Your task to perform on an android device: allow notifications from all sites in the chrome app Image 0: 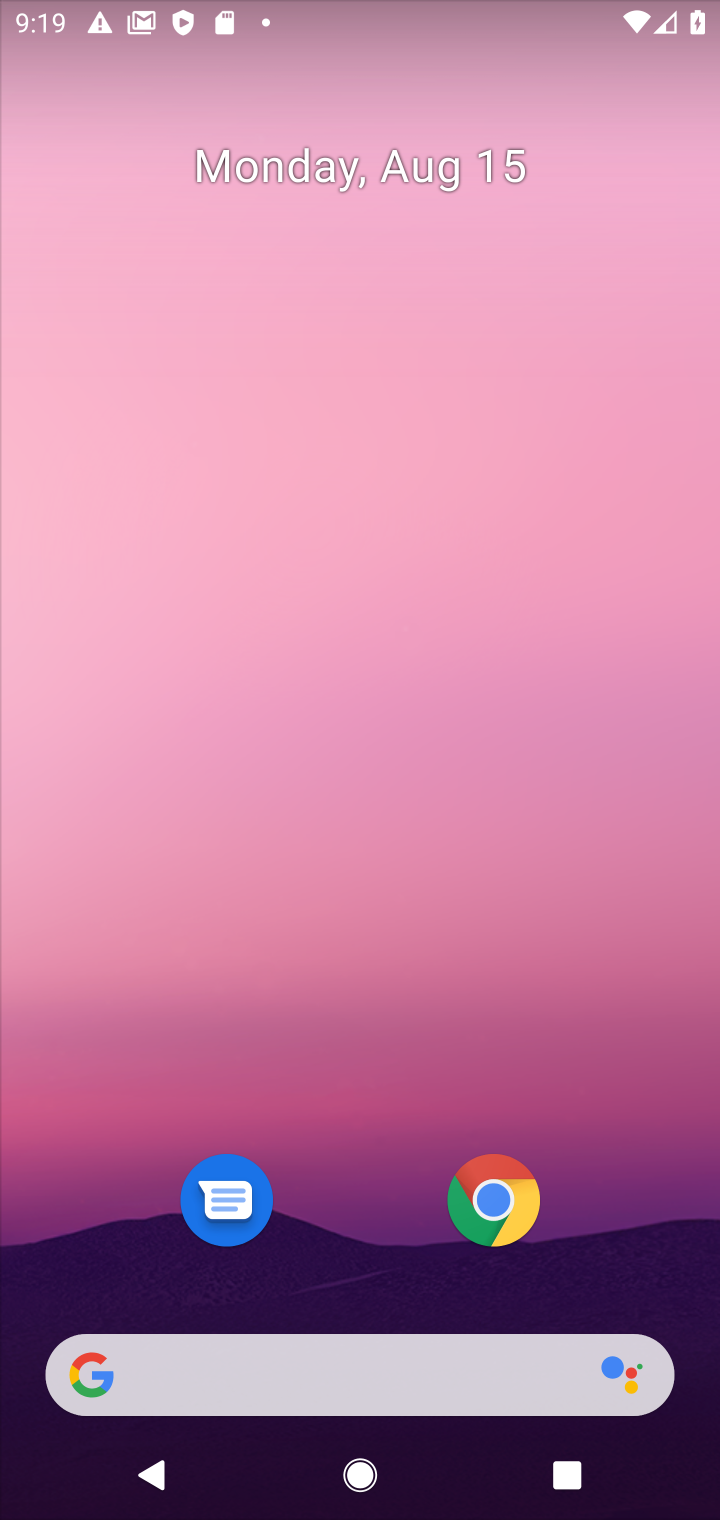
Step 0: click (450, 1163)
Your task to perform on an android device: allow notifications from all sites in the chrome app Image 1: 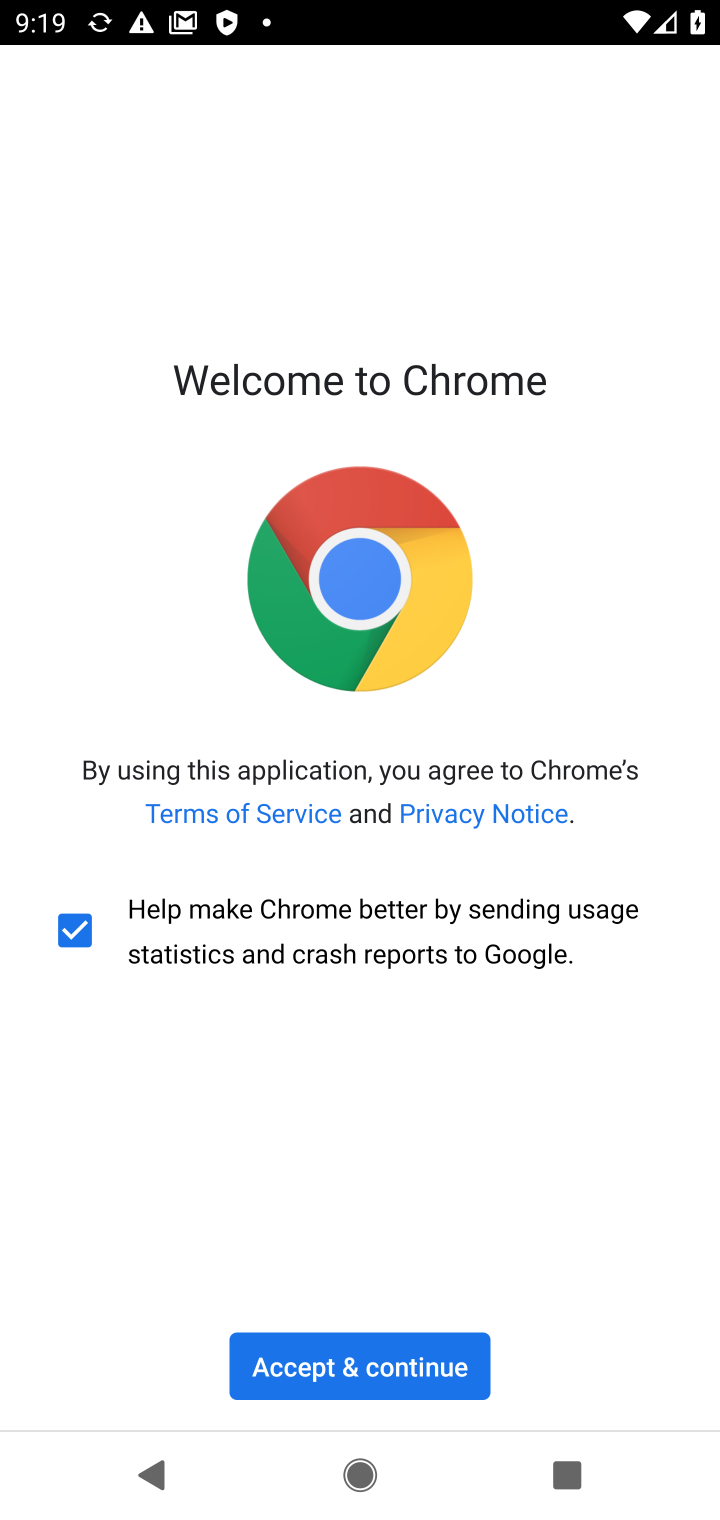
Step 1: click (425, 1354)
Your task to perform on an android device: allow notifications from all sites in the chrome app Image 2: 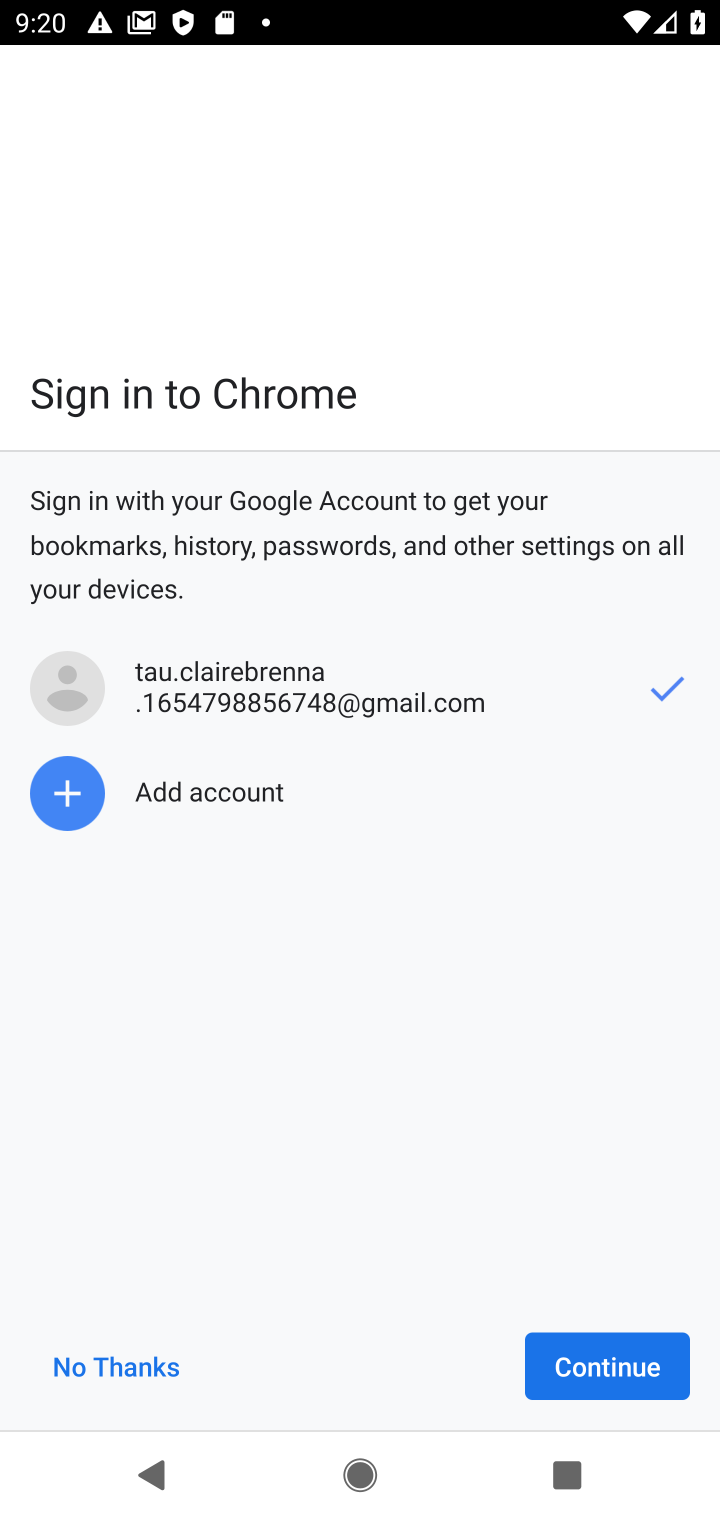
Step 2: click (605, 1358)
Your task to perform on an android device: allow notifications from all sites in the chrome app Image 3: 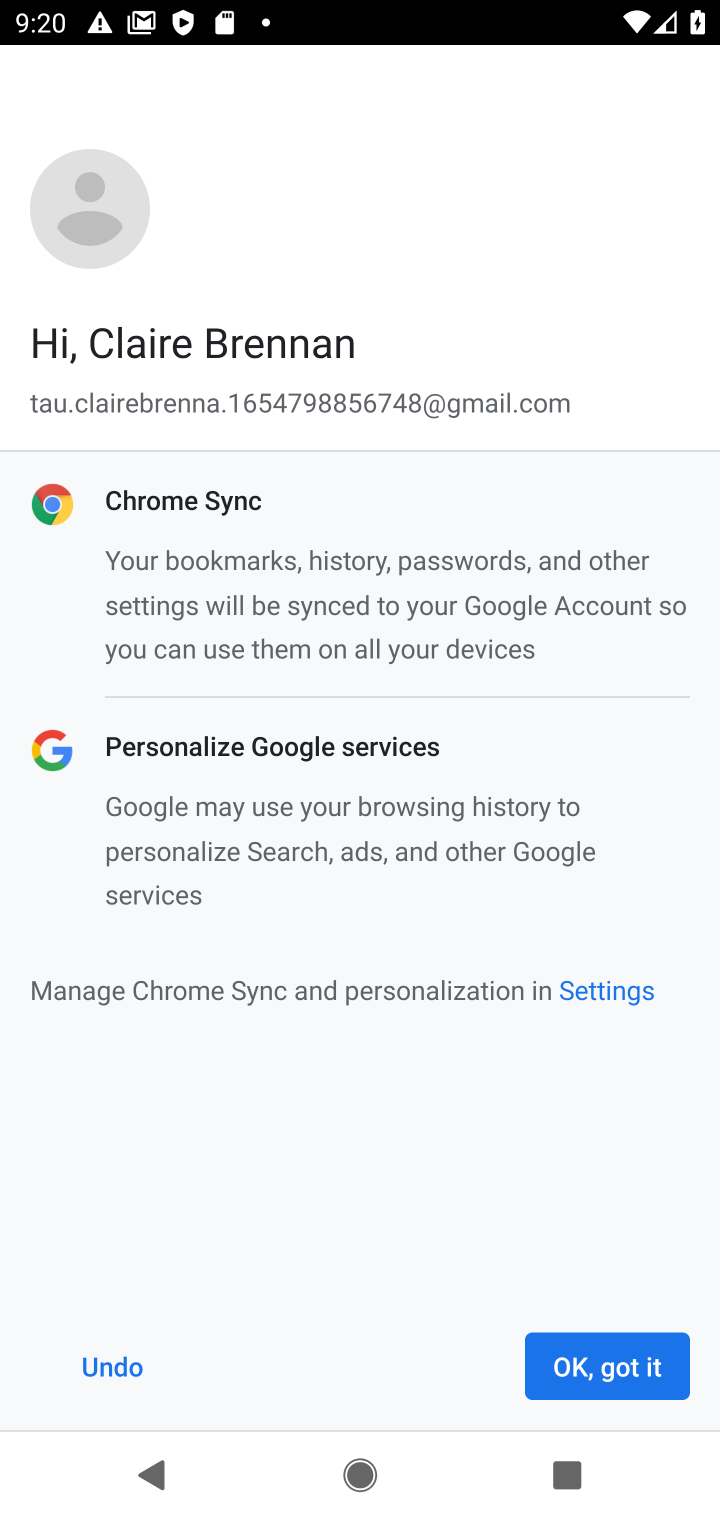
Step 3: click (605, 1358)
Your task to perform on an android device: allow notifications from all sites in the chrome app Image 4: 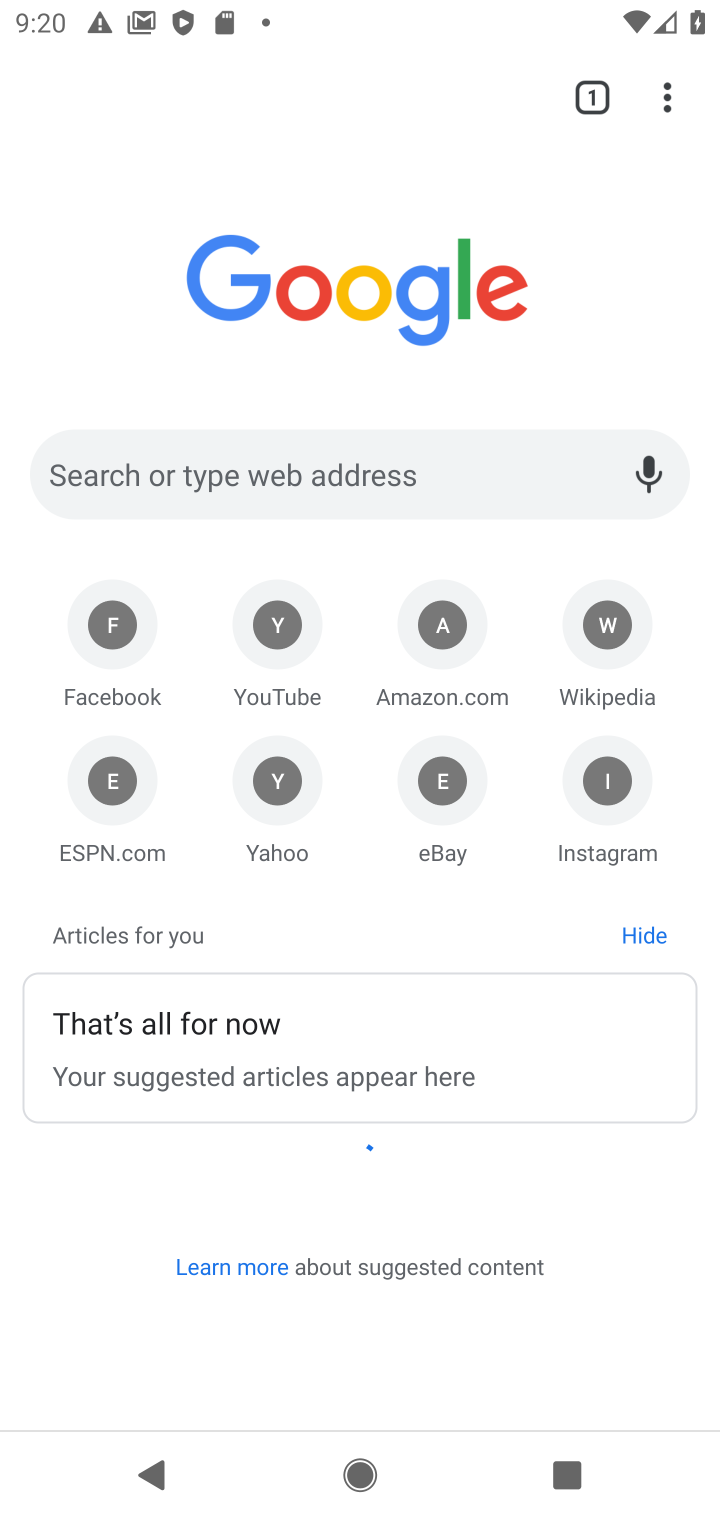
Step 4: click (657, 91)
Your task to perform on an android device: allow notifications from all sites in the chrome app Image 5: 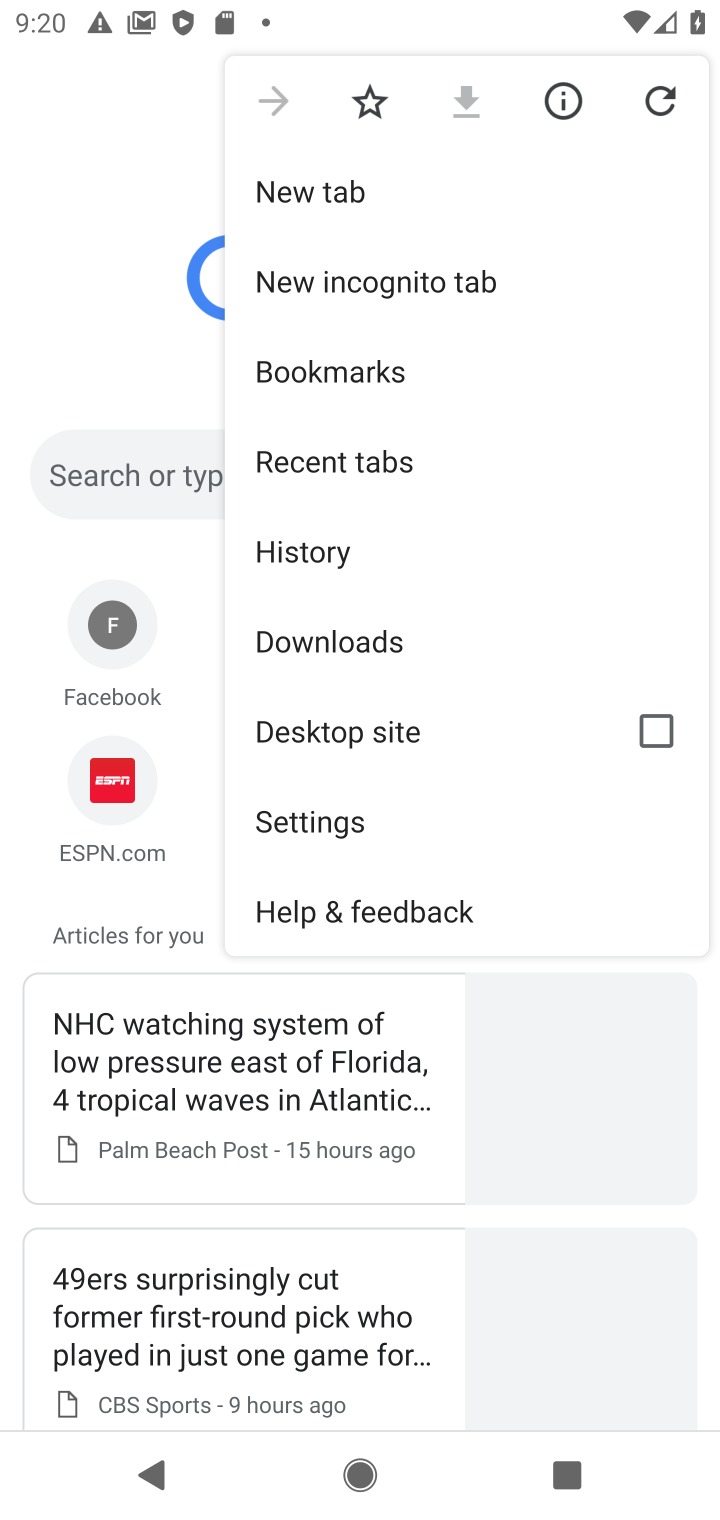
Step 5: click (297, 821)
Your task to perform on an android device: allow notifications from all sites in the chrome app Image 6: 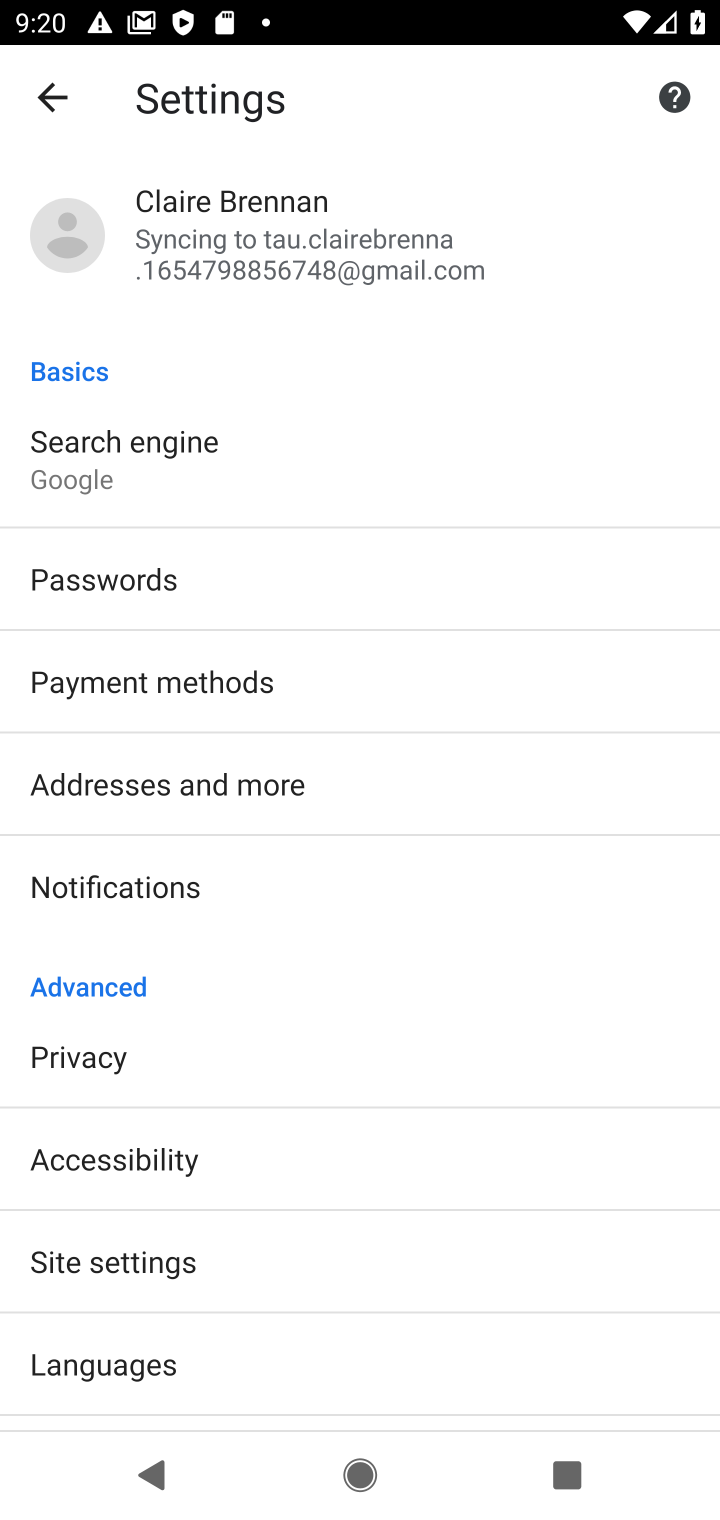
Step 6: click (145, 890)
Your task to perform on an android device: allow notifications from all sites in the chrome app Image 7: 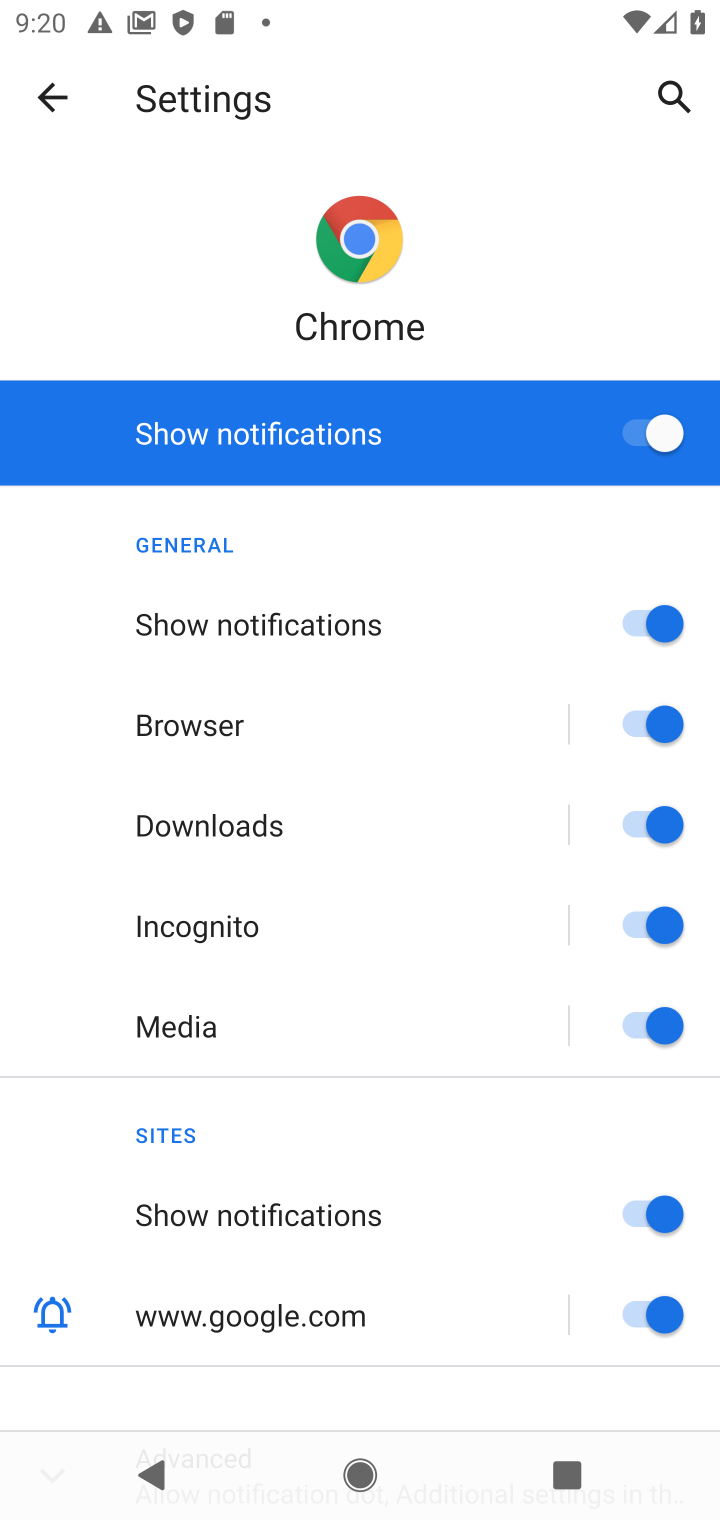
Step 7: drag from (440, 1286) to (508, 405)
Your task to perform on an android device: allow notifications from all sites in the chrome app Image 8: 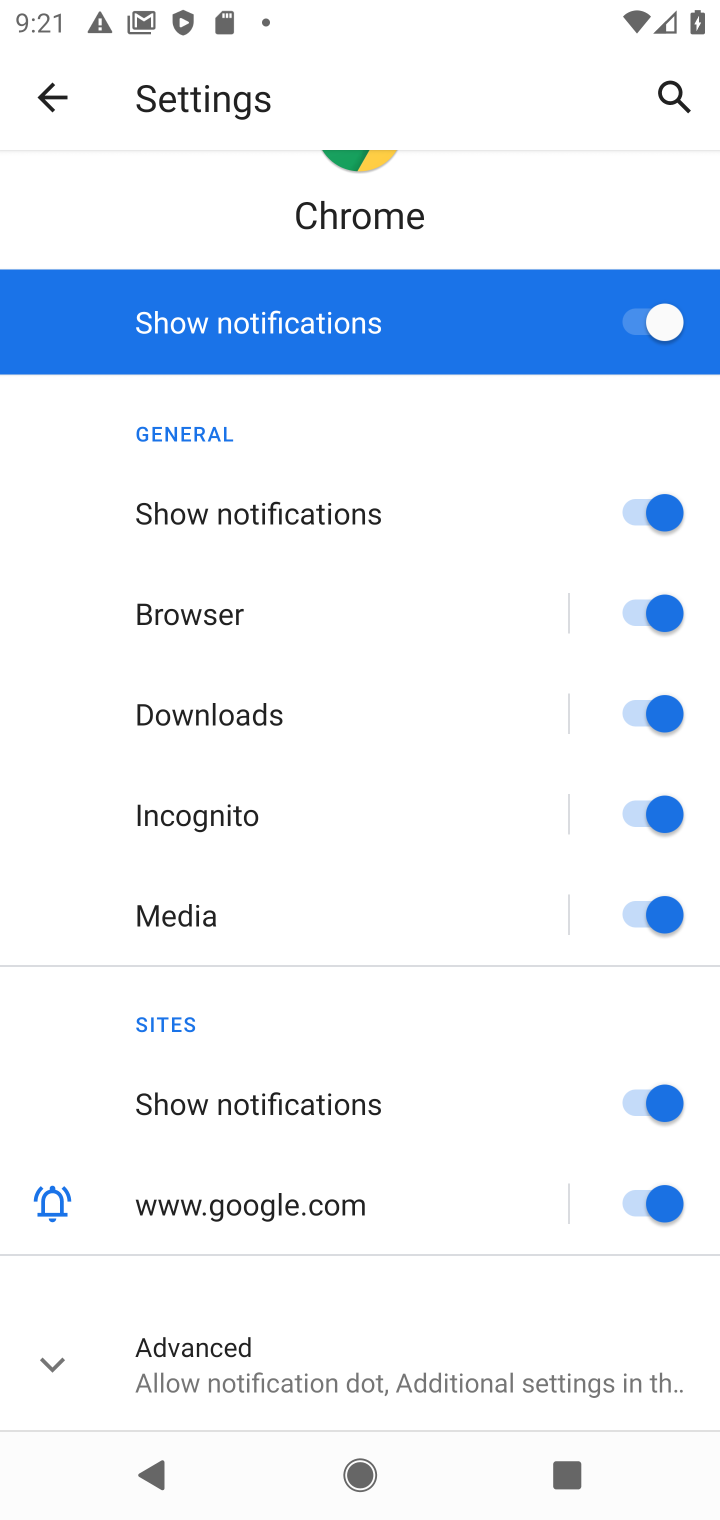
Step 8: click (655, 315)
Your task to perform on an android device: allow notifications from all sites in the chrome app Image 9: 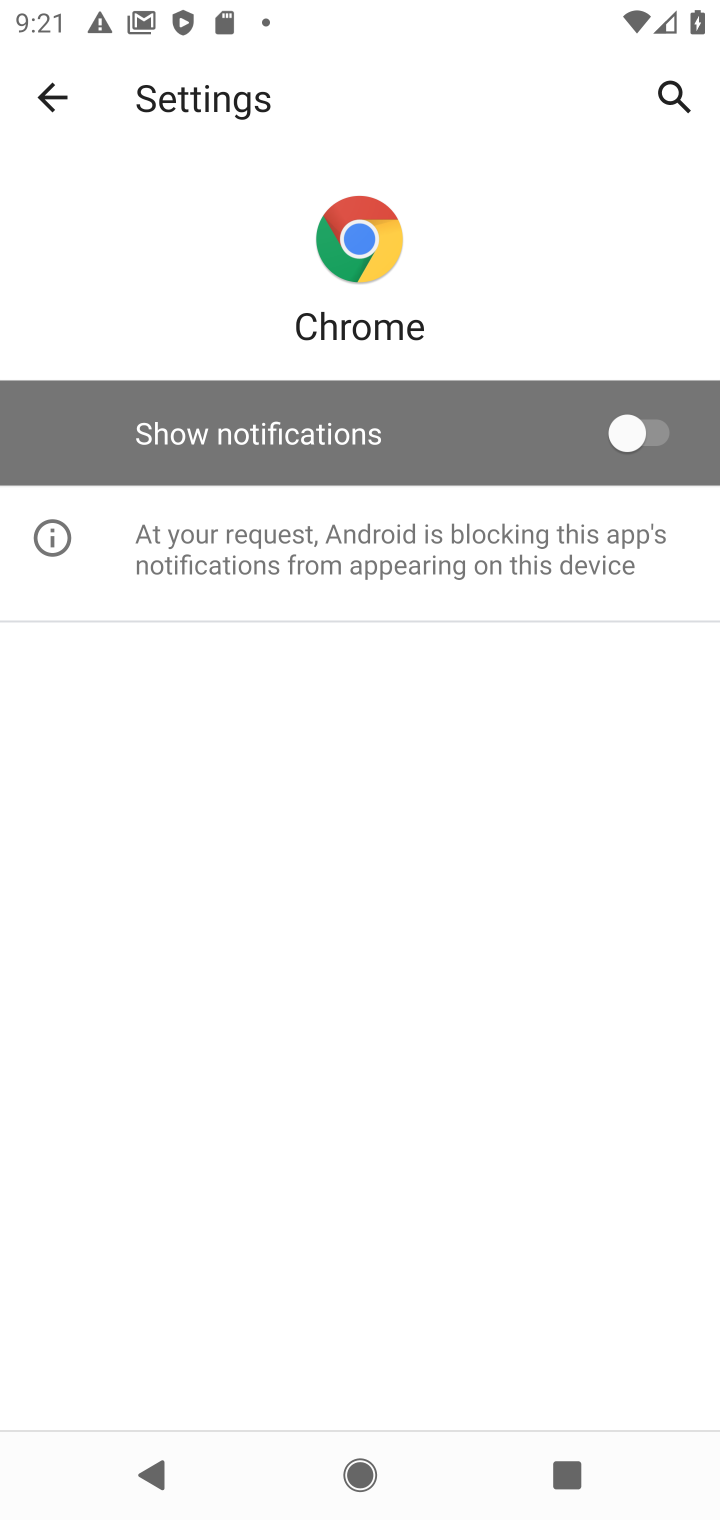
Step 9: task complete